Your task to perform on an android device: turn on translation in the chrome app Image 0: 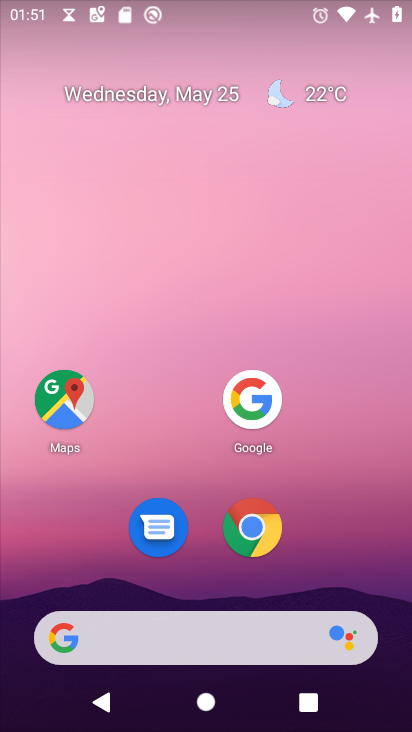
Step 0: click (245, 533)
Your task to perform on an android device: turn on translation in the chrome app Image 1: 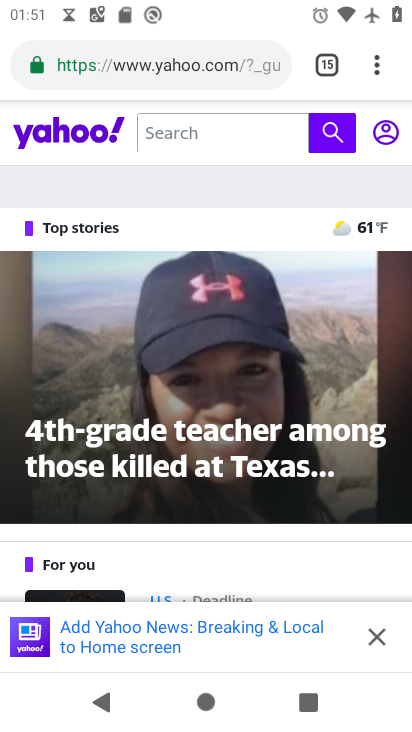
Step 1: drag from (373, 69) to (149, 584)
Your task to perform on an android device: turn on translation in the chrome app Image 2: 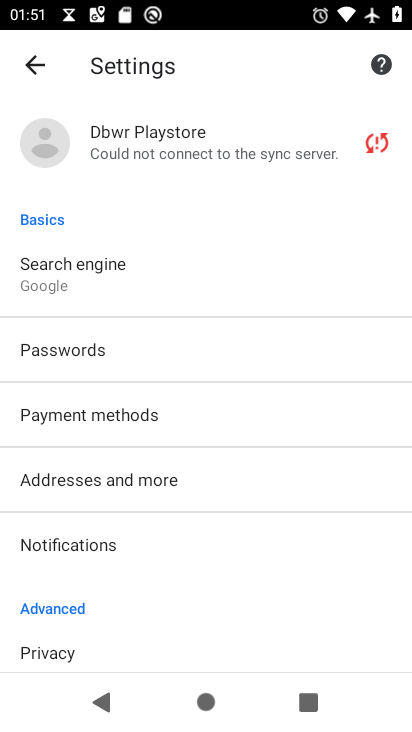
Step 2: drag from (123, 619) to (252, 287)
Your task to perform on an android device: turn on translation in the chrome app Image 3: 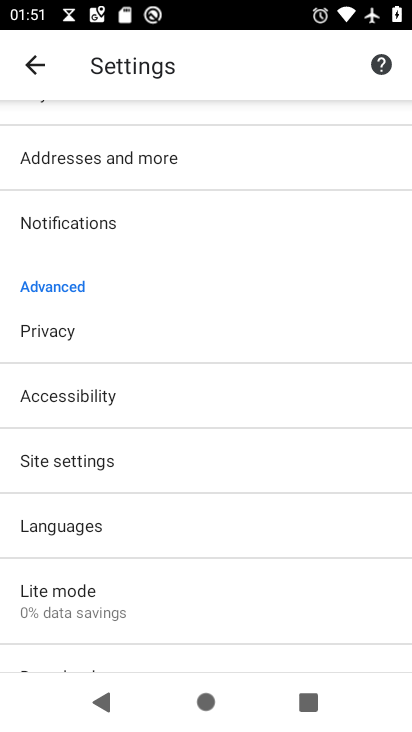
Step 3: click (76, 531)
Your task to perform on an android device: turn on translation in the chrome app Image 4: 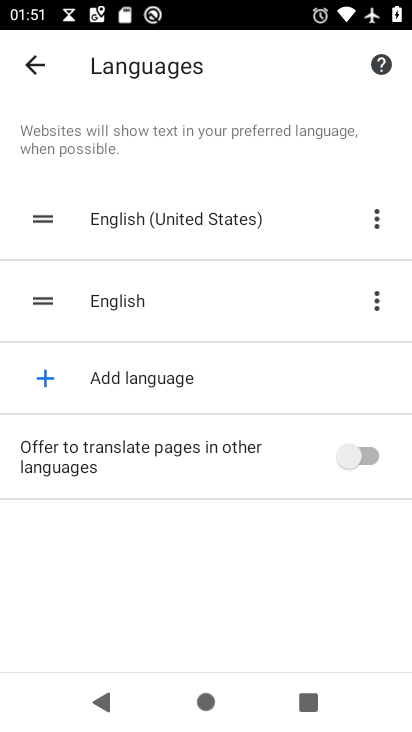
Step 4: click (368, 454)
Your task to perform on an android device: turn on translation in the chrome app Image 5: 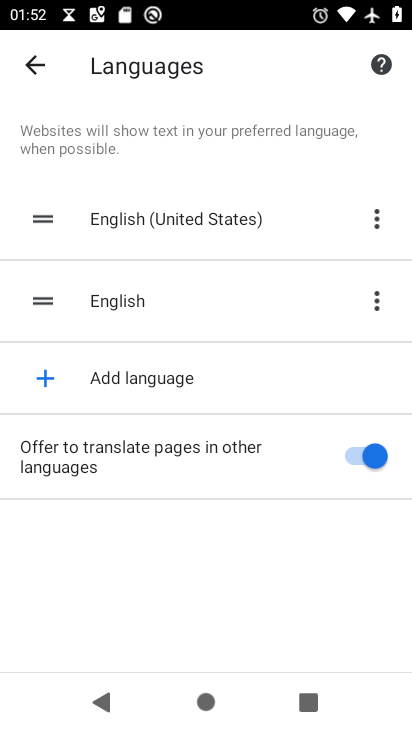
Step 5: task complete